Your task to perform on an android device: Open Google Image 0: 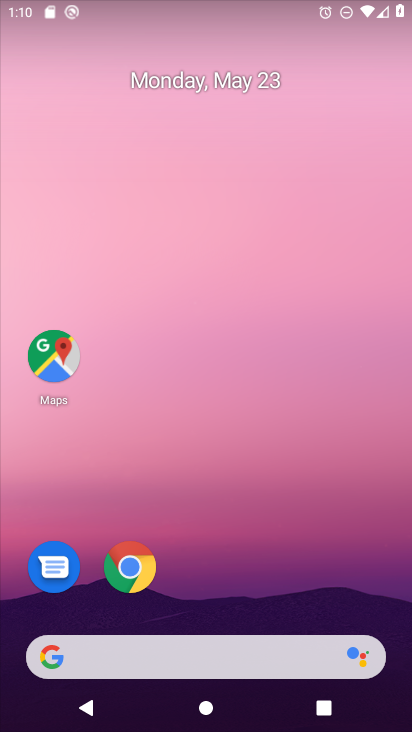
Step 0: click (160, 644)
Your task to perform on an android device: Open Google Image 1: 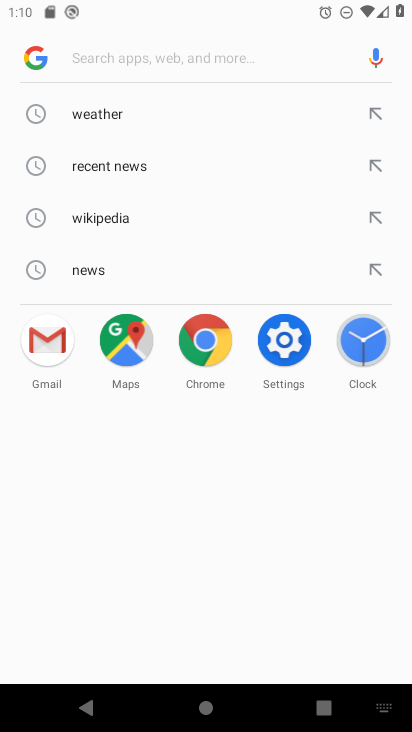
Step 1: task complete